Your task to perform on an android device: change timer sound Image 0: 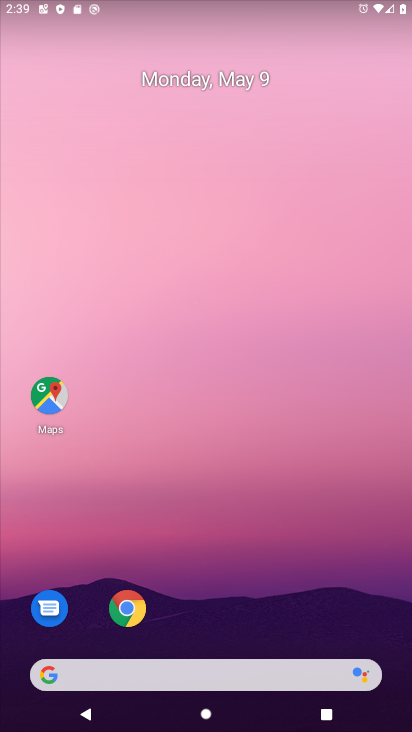
Step 0: drag from (186, 624) to (213, 221)
Your task to perform on an android device: change timer sound Image 1: 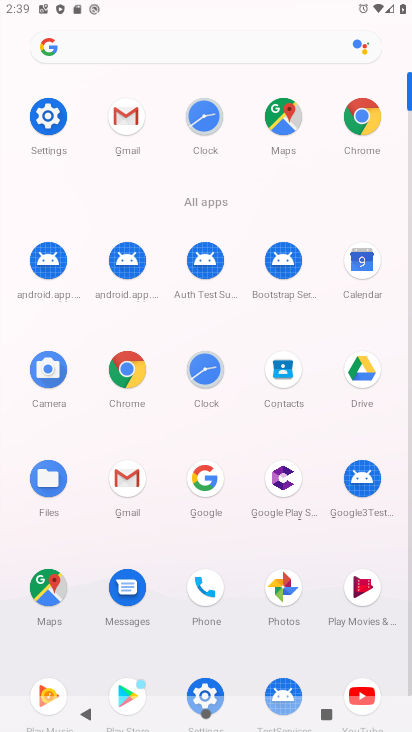
Step 1: click (206, 133)
Your task to perform on an android device: change timer sound Image 2: 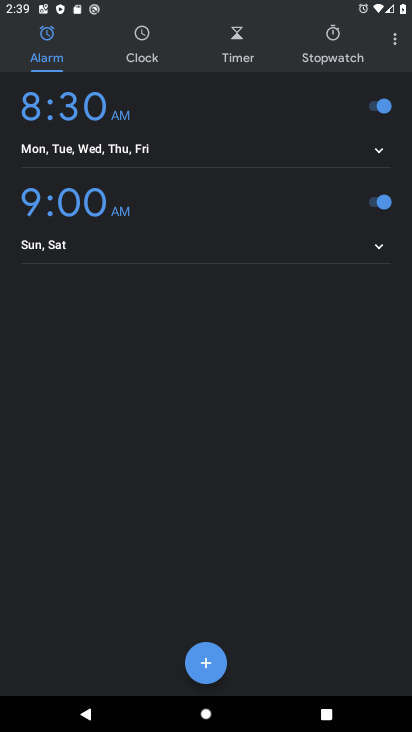
Step 2: click (401, 44)
Your task to perform on an android device: change timer sound Image 3: 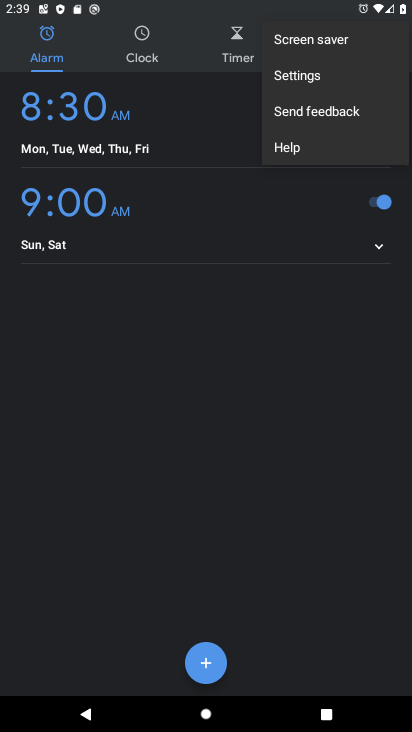
Step 3: click (309, 82)
Your task to perform on an android device: change timer sound Image 4: 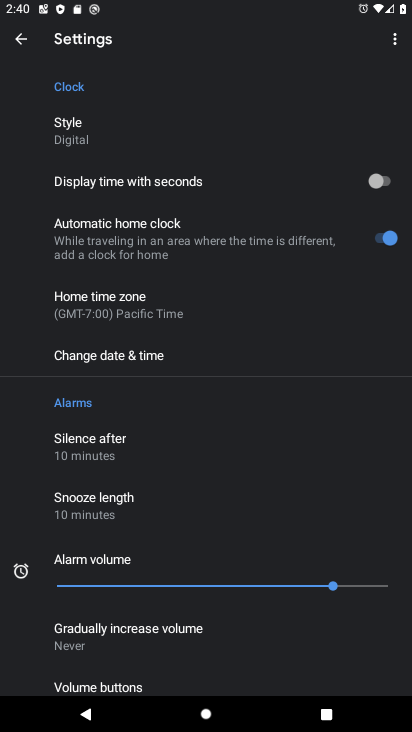
Step 4: drag from (179, 563) to (215, 263)
Your task to perform on an android device: change timer sound Image 5: 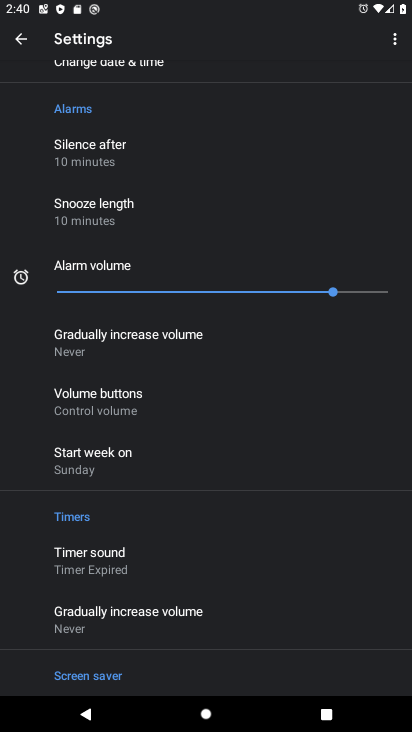
Step 5: click (134, 583)
Your task to perform on an android device: change timer sound Image 6: 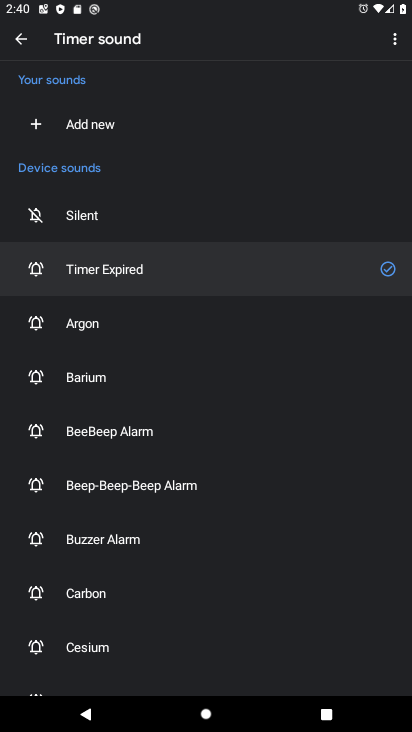
Step 6: click (134, 583)
Your task to perform on an android device: change timer sound Image 7: 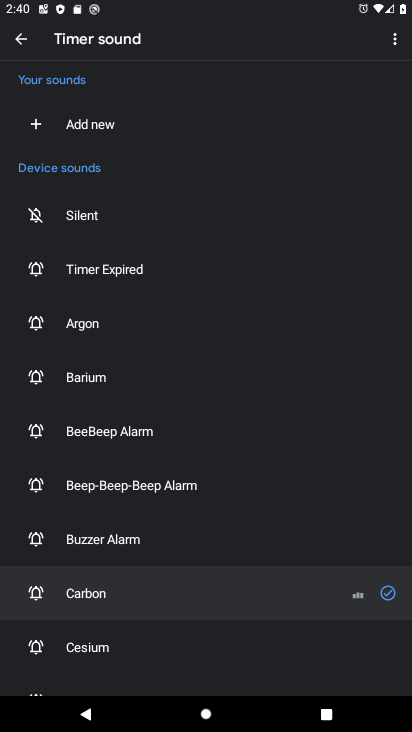
Step 7: task complete